Your task to perform on an android device: add a label to a message in the gmail app Image 0: 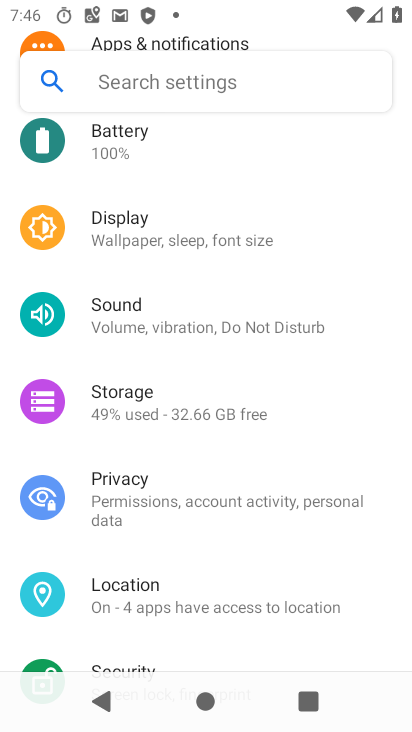
Step 0: press home button
Your task to perform on an android device: add a label to a message in the gmail app Image 1: 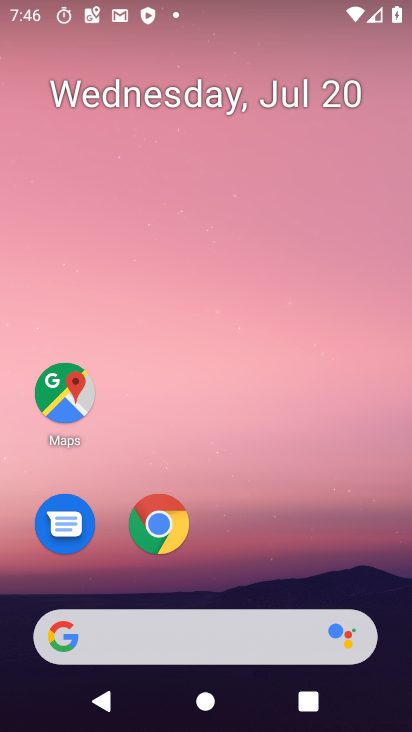
Step 1: drag from (236, 629) to (370, 85)
Your task to perform on an android device: add a label to a message in the gmail app Image 2: 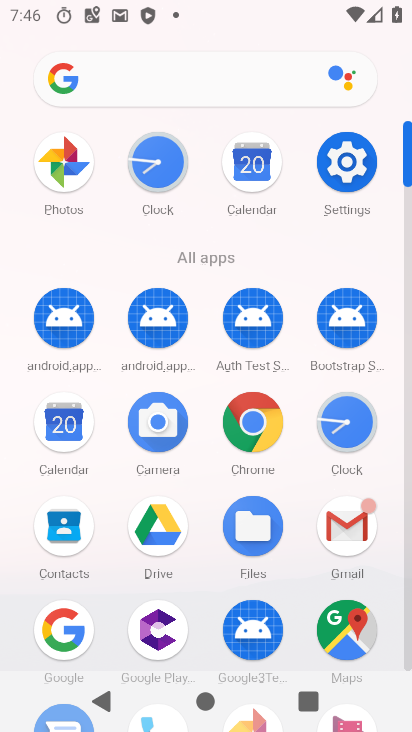
Step 2: click (367, 519)
Your task to perform on an android device: add a label to a message in the gmail app Image 3: 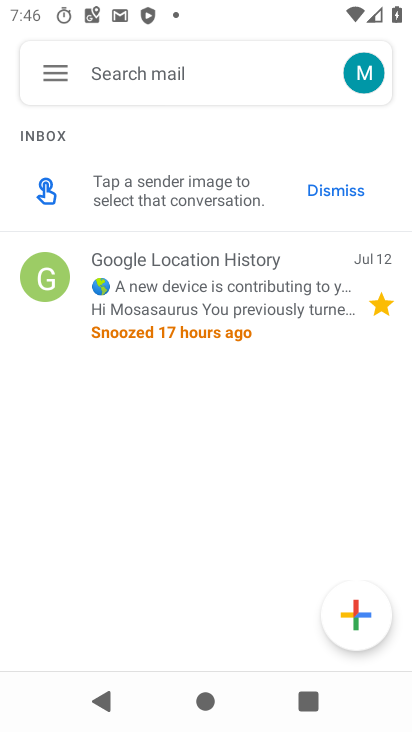
Step 3: click (164, 297)
Your task to perform on an android device: add a label to a message in the gmail app Image 4: 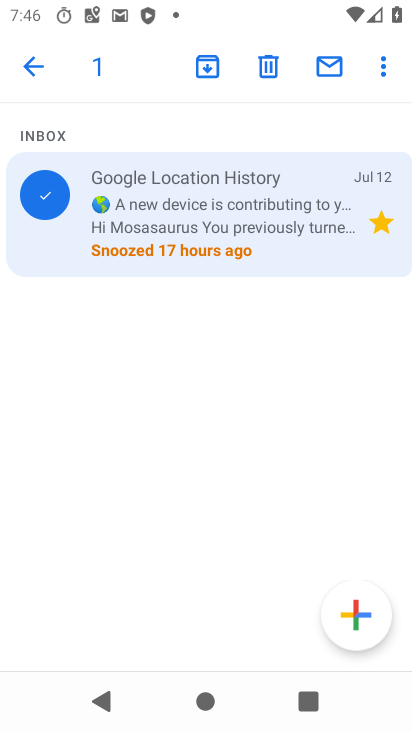
Step 4: click (217, 222)
Your task to perform on an android device: add a label to a message in the gmail app Image 5: 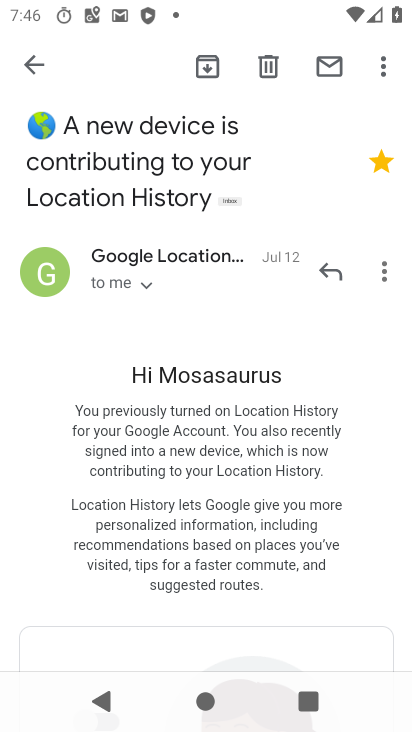
Step 5: click (235, 203)
Your task to perform on an android device: add a label to a message in the gmail app Image 6: 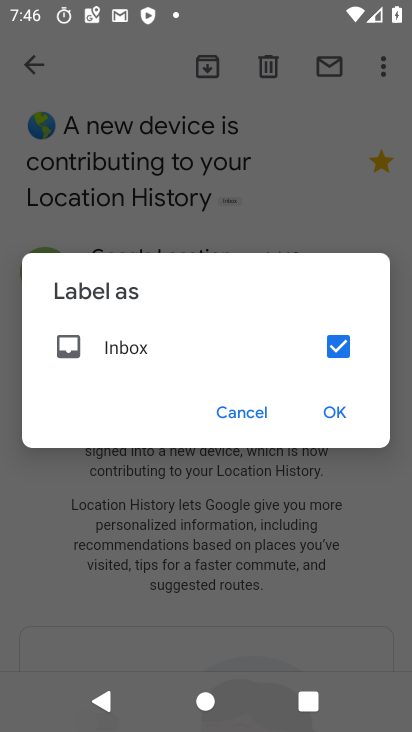
Step 6: click (345, 412)
Your task to perform on an android device: add a label to a message in the gmail app Image 7: 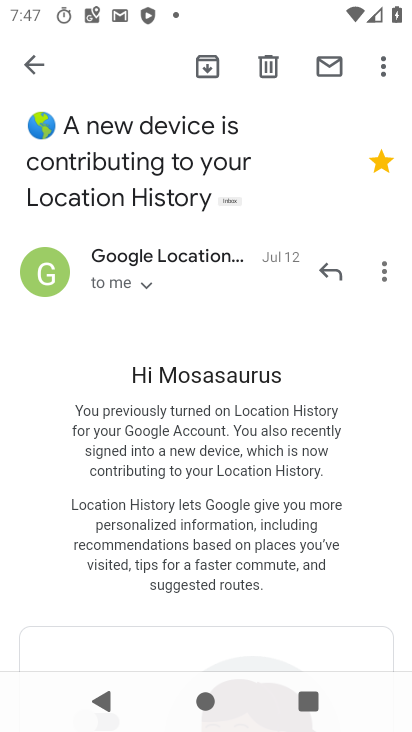
Step 7: task complete